Your task to perform on an android device: turn off notifications settings in the gmail app Image 0: 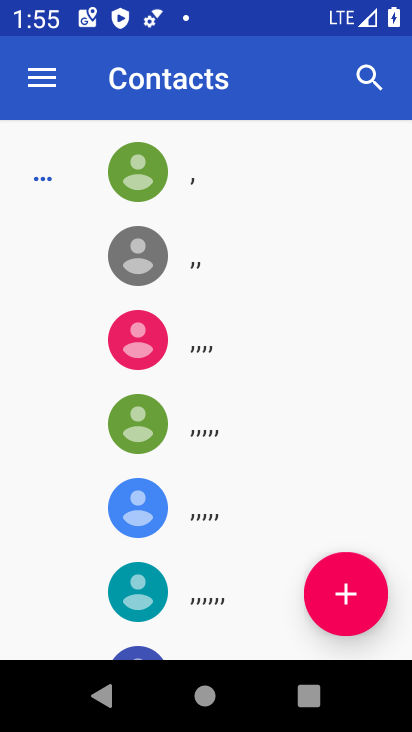
Step 0: press home button
Your task to perform on an android device: turn off notifications settings in the gmail app Image 1: 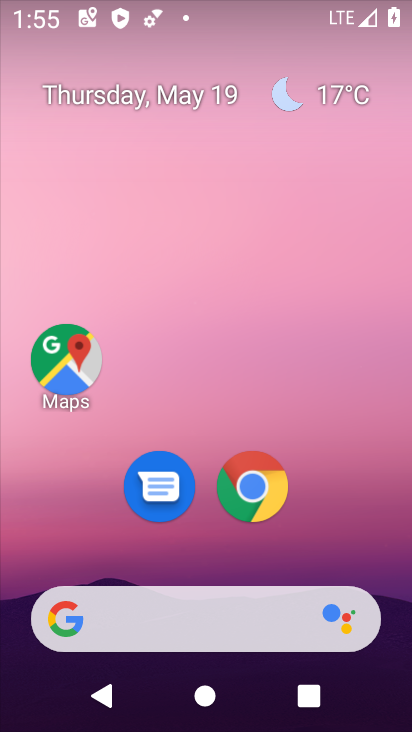
Step 1: drag from (325, 539) to (205, 26)
Your task to perform on an android device: turn off notifications settings in the gmail app Image 2: 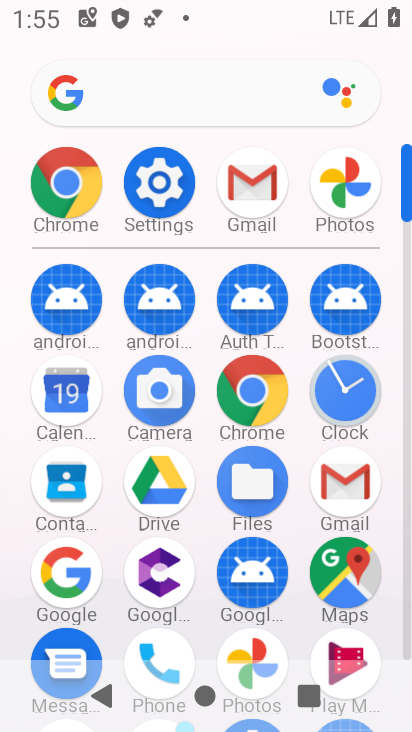
Step 2: click (246, 188)
Your task to perform on an android device: turn off notifications settings in the gmail app Image 3: 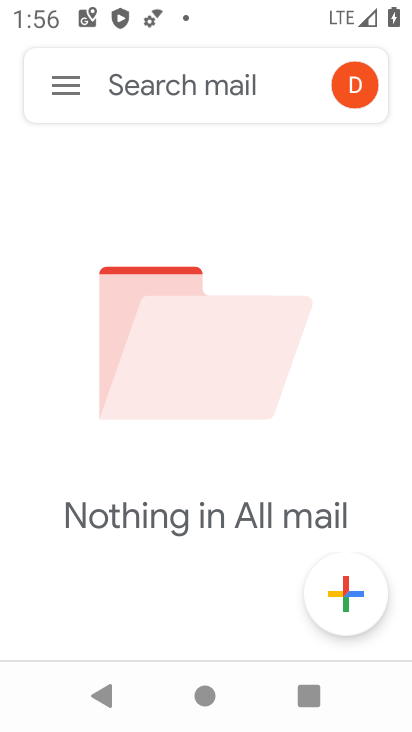
Step 3: click (56, 81)
Your task to perform on an android device: turn off notifications settings in the gmail app Image 4: 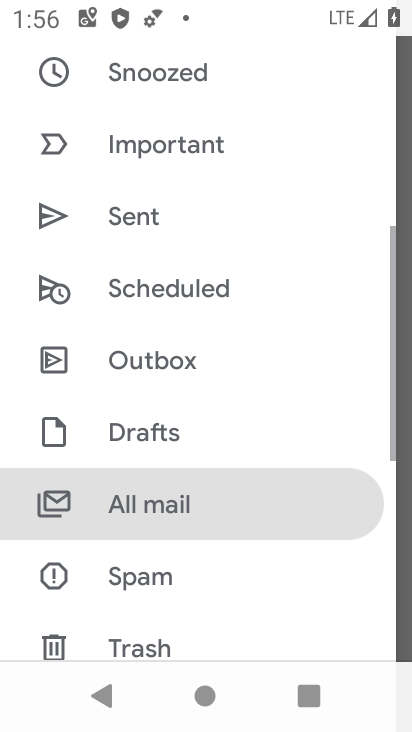
Step 4: drag from (217, 601) to (225, 91)
Your task to perform on an android device: turn off notifications settings in the gmail app Image 5: 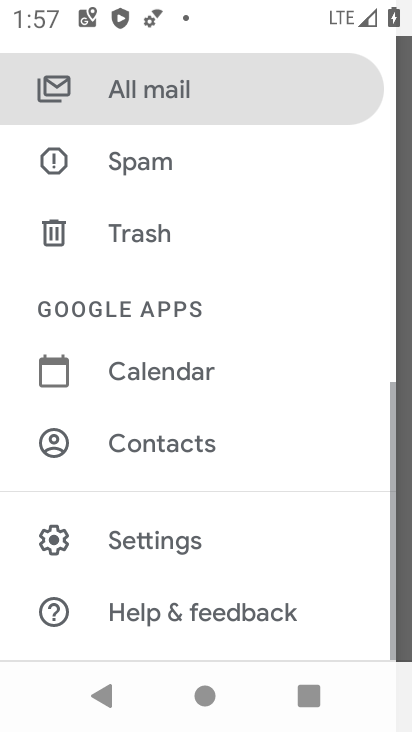
Step 5: drag from (214, 599) to (243, 394)
Your task to perform on an android device: turn off notifications settings in the gmail app Image 6: 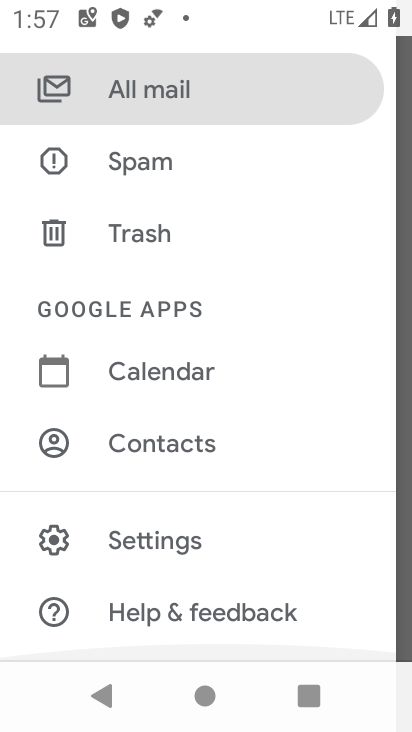
Step 6: click (171, 536)
Your task to perform on an android device: turn off notifications settings in the gmail app Image 7: 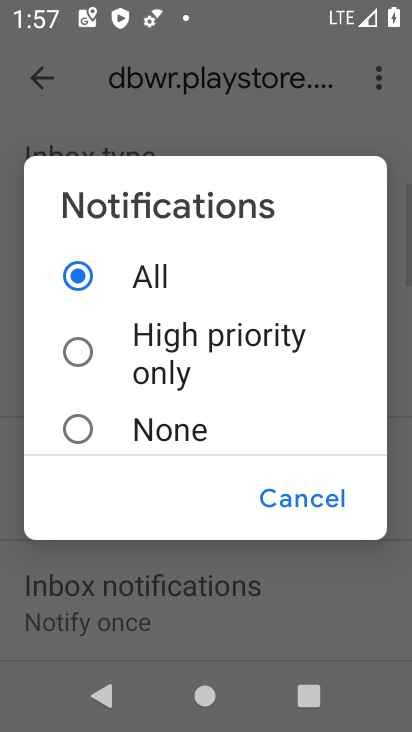
Step 7: click (296, 501)
Your task to perform on an android device: turn off notifications settings in the gmail app Image 8: 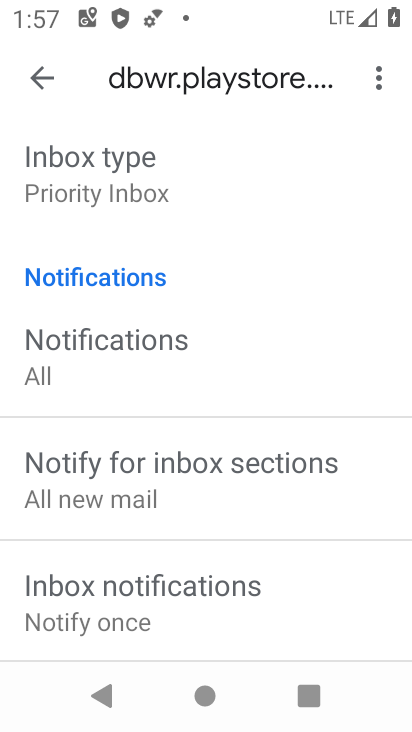
Step 8: drag from (194, 540) to (217, 186)
Your task to perform on an android device: turn off notifications settings in the gmail app Image 9: 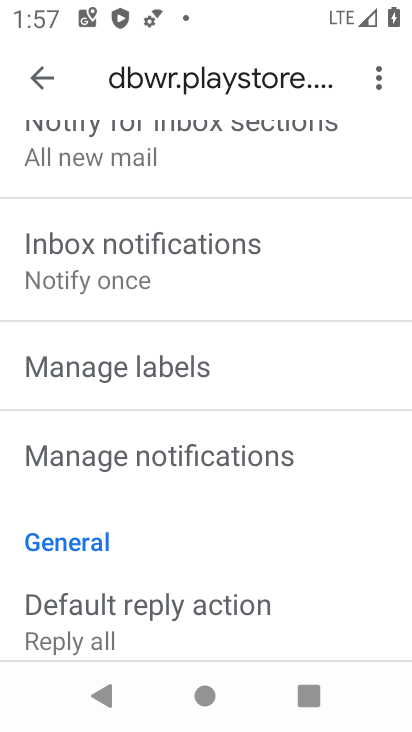
Step 9: click (219, 468)
Your task to perform on an android device: turn off notifications settings in the gmail app Image 10: 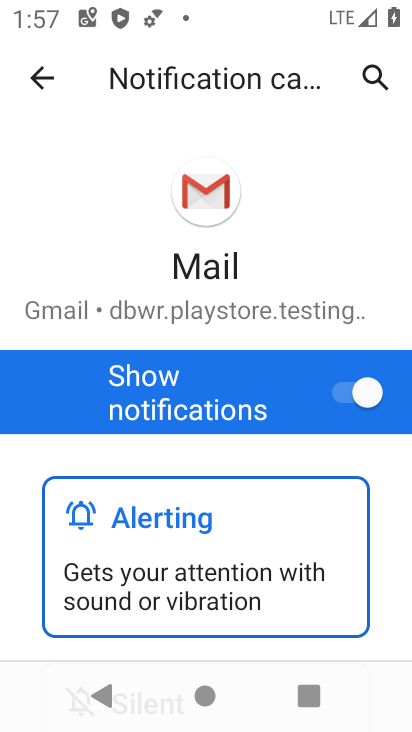
Step 10: click (372, 387)
Your task to perform on an android device: turn off notifications settings in the gmail app Image 11: 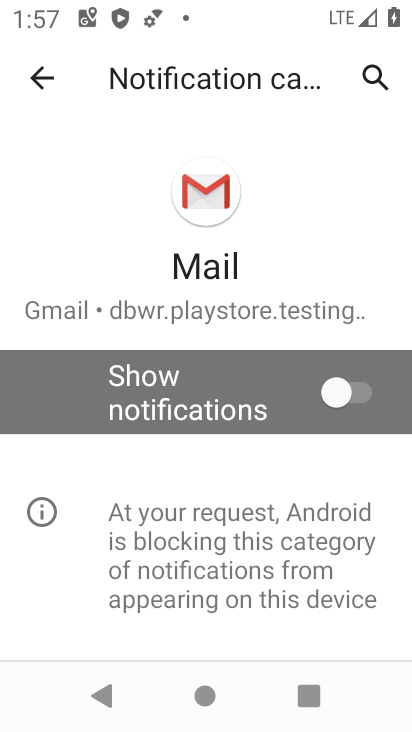
Step 11: task complete